Your task to perform on an android device: Go to accessibility settings Image 0: 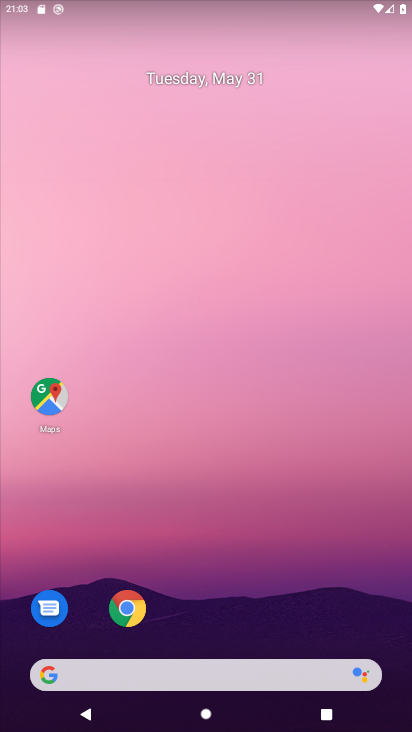
Step 0: drag from (208, 585) to (173, 227)
Your task to perform on an android device: Go to accessibility settings Image 1: 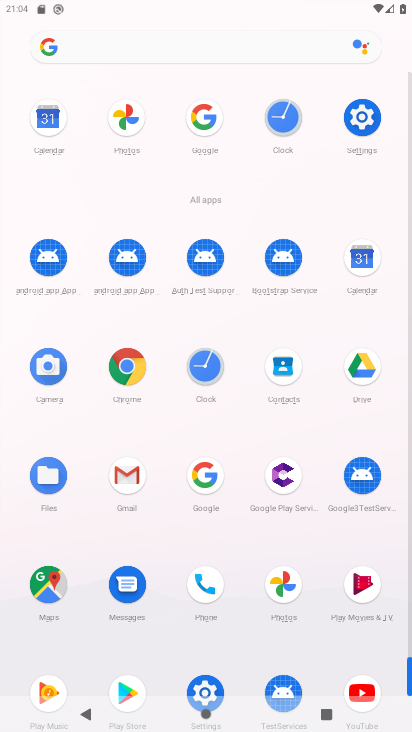
Step 1: click (360, 118)
Your task to perform on an android device: Go to accessibility settings Image 2: 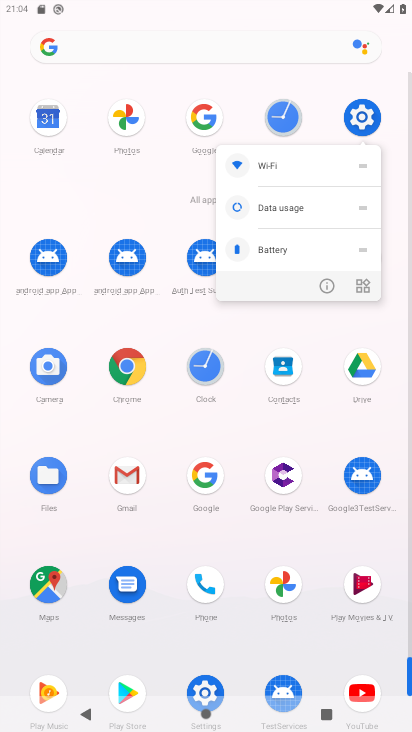
Step 2: click (360, 118)
Your task to perform on an android device: Go to accessibility settings Image 3: 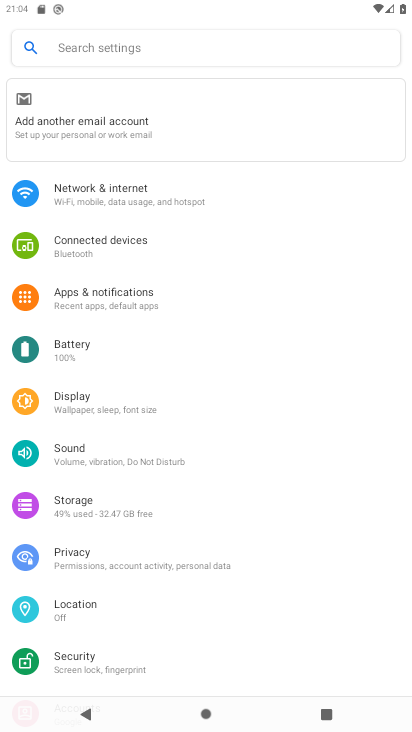
Step 3: drag from (110, 441) to (146, 368)
Your task to perform on an android device: Go to accessibility settings Image 4: 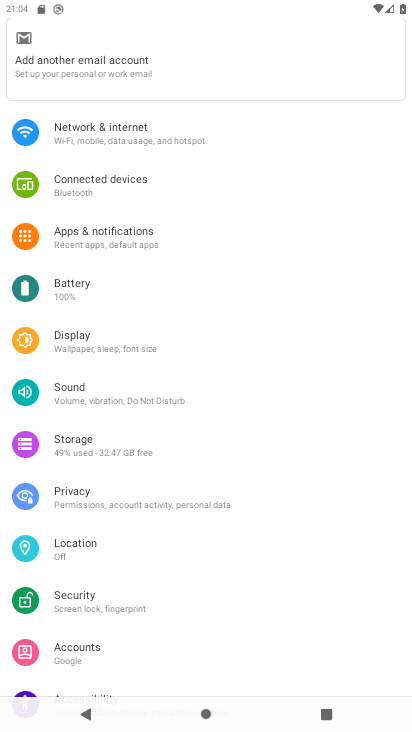
Step 4: drag from (150, 591) to (187, 501)
Your task to perform on an android device: Go to accessibility settings Image 5: 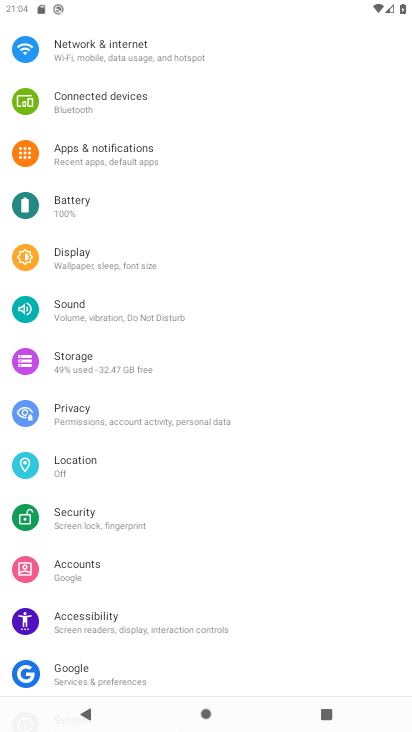
Step 5: drag from (167, 567) to (200, 516)
Your task to perform on an android device: Go to accessibility settings Image 6: 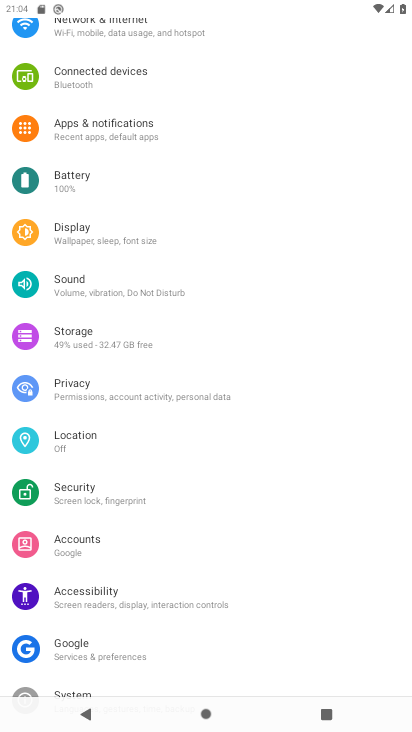
Step 6: click (127, 593)
Your task to perform on an android device: Go to accessibility settings Image 7: 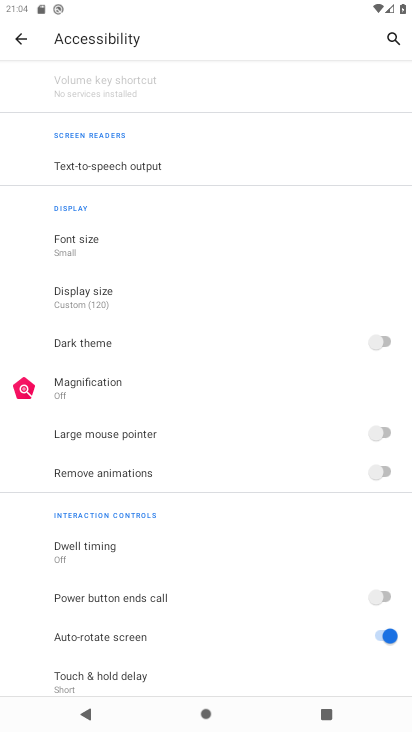
Step 7: task complete